Your task to perform on an android device: open wifi settings Image 0: 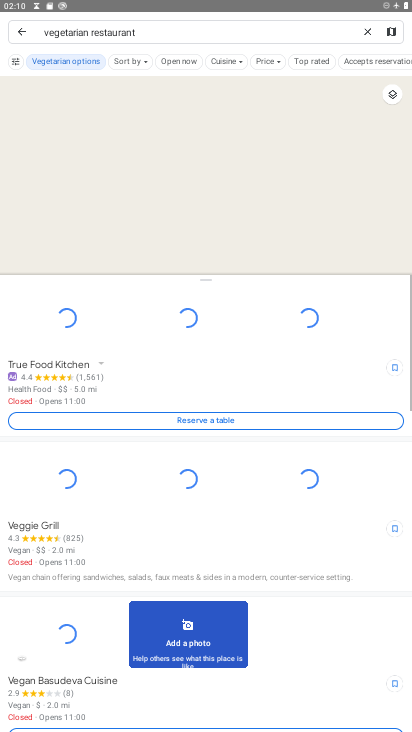
Step 0: press home button
Your task to perform on an android device: open wifi settings Image 1: 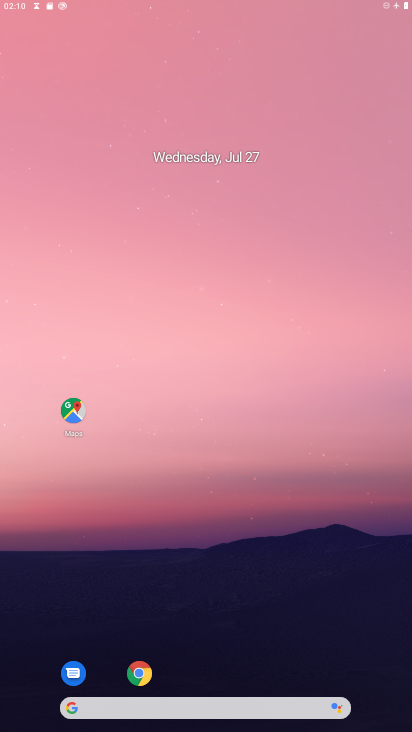
Step 1: drag from (241, 724) to (289, 360)
Your task to perform on an android device: open wifi settings Image 2: 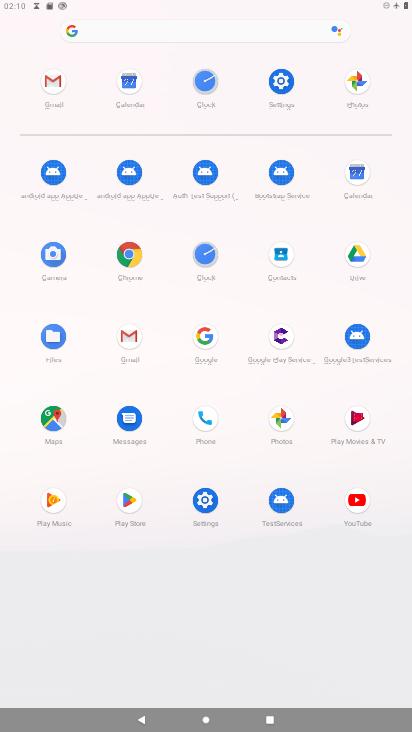
Step 2: click (274, 68)
Your task to perform on an android device: open wifi settings Image 3: 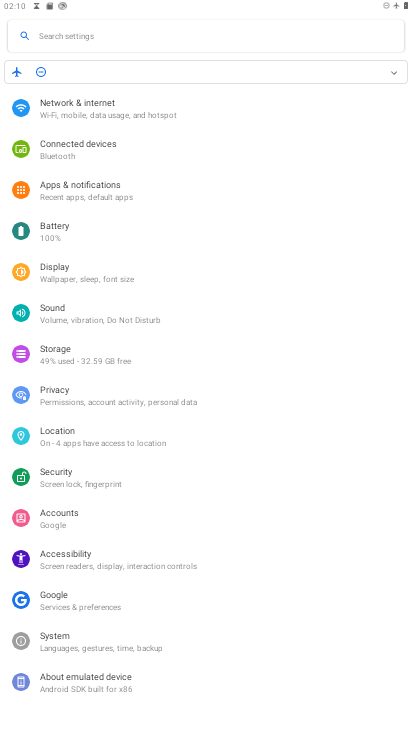
Step 3: click (152, 110)
Your task to perform on an android device: open wifi settings Image 4: 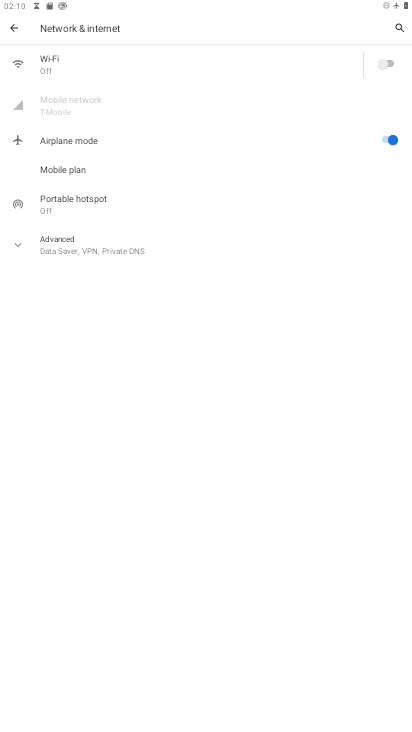
Step 4: click (135, 60)
Your task to perform on an android device: open wifi settings Image 5: 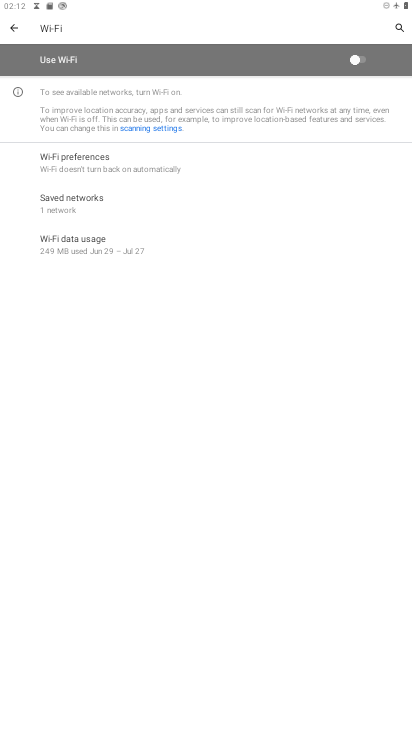
Step 5: task complete